Your task to perform on an android device: read, delete, or share a saved page in the chrome app Image 0: 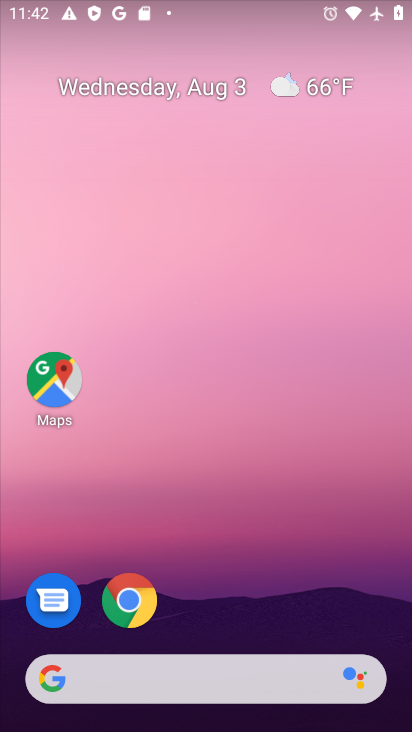
Step 0: drag from (196, 615) to (73, 46)
Your task to perform on an android device: read, delete, or share a saved page in the chrome app Image 1: 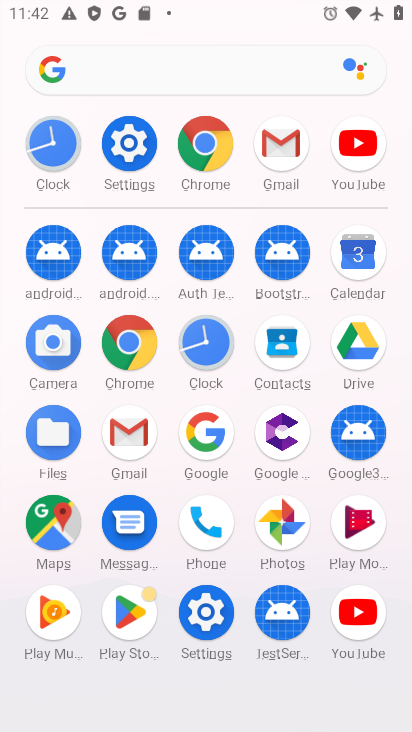
Step 1: click (129, 328)
Your task to perform on an android device: read, delete, or share a saved page in the chrome app Image 2: 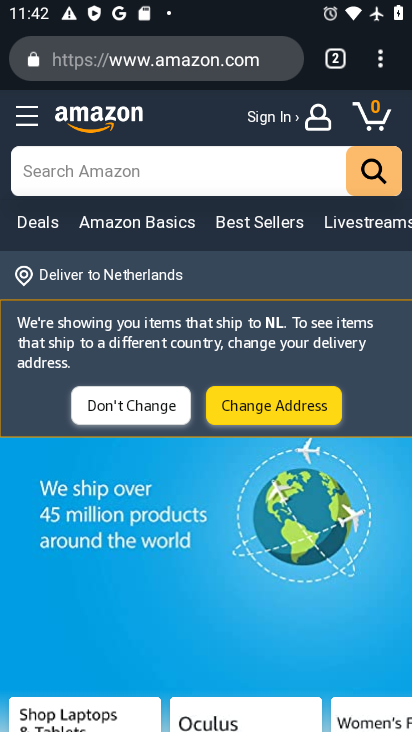
Step 2: click (372, 74)
Your task to perform on an android device: read, delete, or share a saved page in the chrome app Image 3: 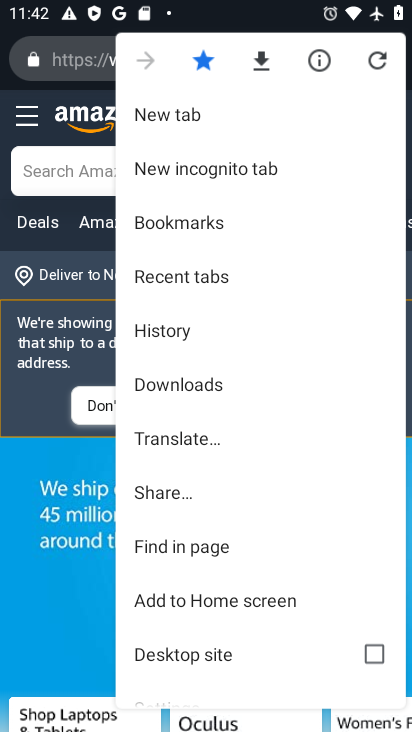
Step 3: click (174, 199)
Your task to perform on an android device: read, delete, or share a saved page in the chrome app Image 4: 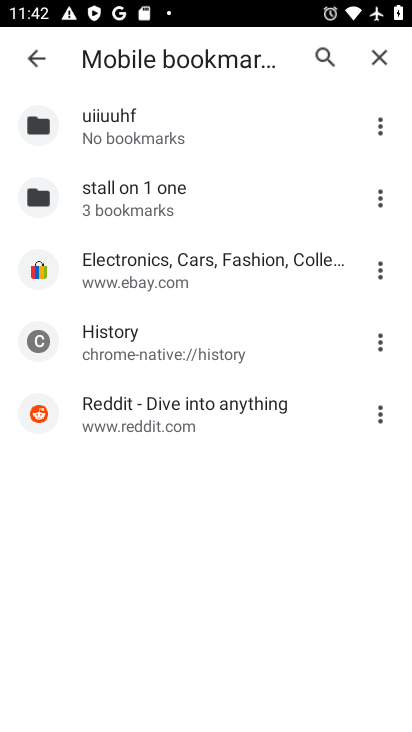
Step 4: task complete